Your task to perform on an android device: check the backup settings in the google photos Image 0: 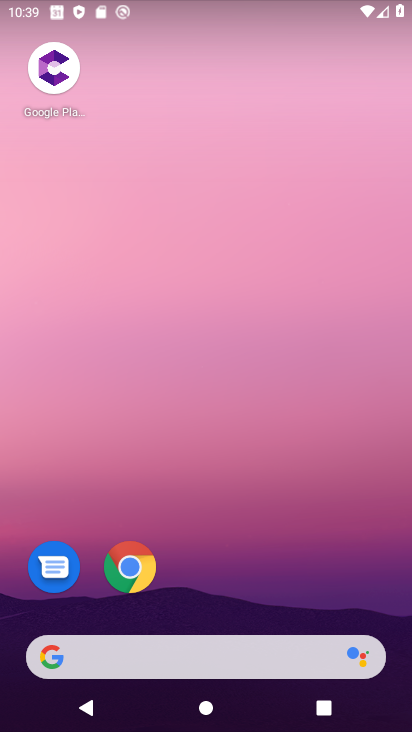
Step 0: drag from (313, 591) to (305, 94)
Your task to perform on an android device: check the backup settings in the google photos Image 1: 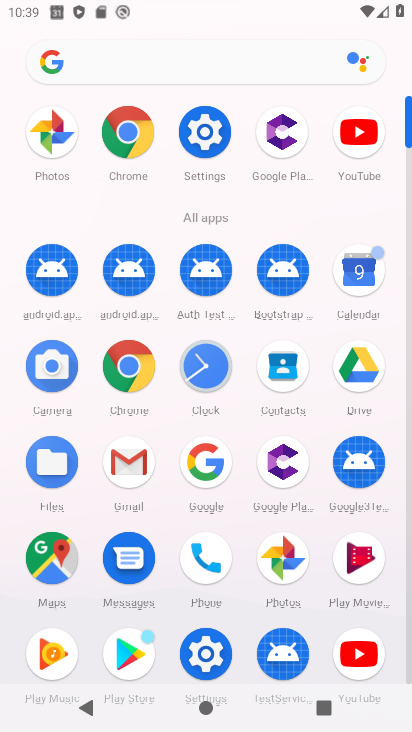
Step 1: click (278, 579)
Your task to perform on an android device: check the backup settings in the google photos Image 2: 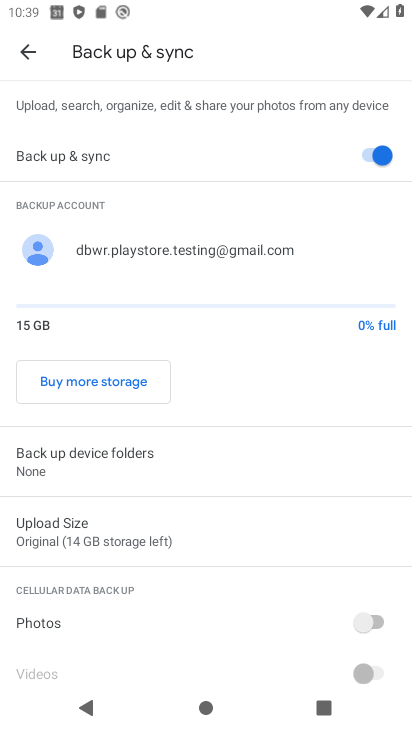
Step 2: task complete